Your task to perform on an android device: Open CNN.com Image 0: 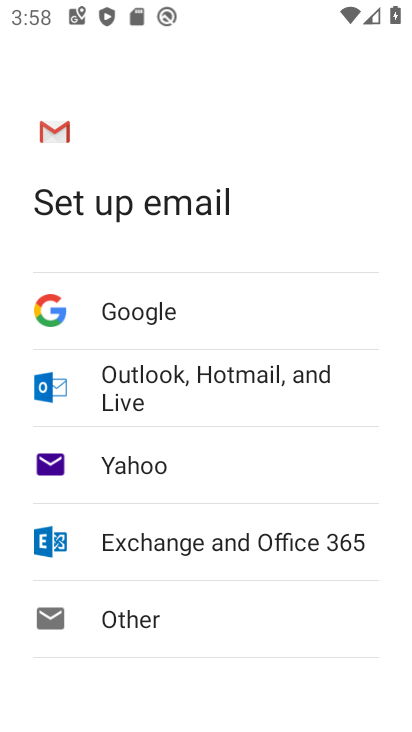
Step 0: press home button
Your task to perform on an android device: Open CNN.com Image 1: 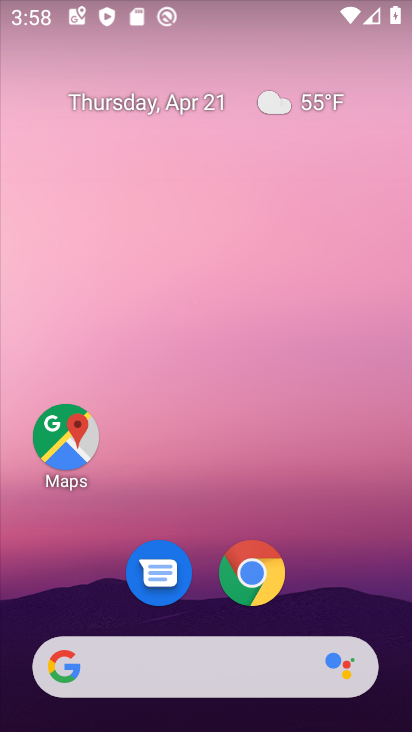
Step 1: click (255, 573)
Your task to perform on an android device: Open CNN.com Image 2: 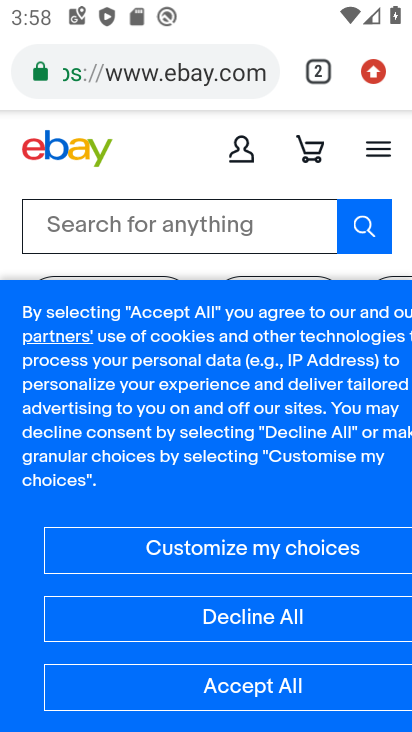
Step 2: click (139, 72)
Your task to perform on an android device: Open CNN.com Image 3: 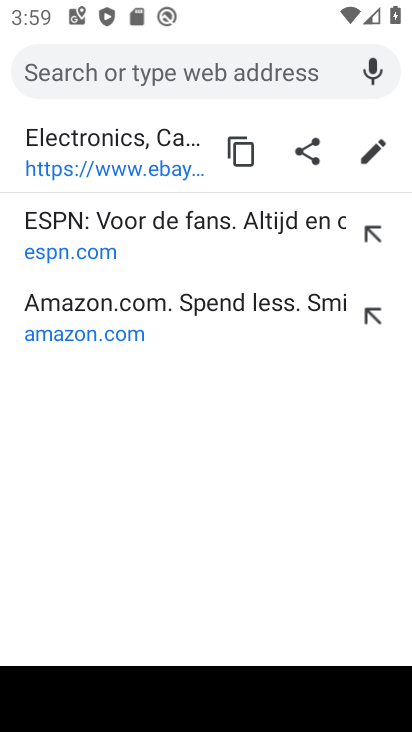
Step 3: type "cnn.com"
Your task to perform on an android device: Open CNN.com Image 4: 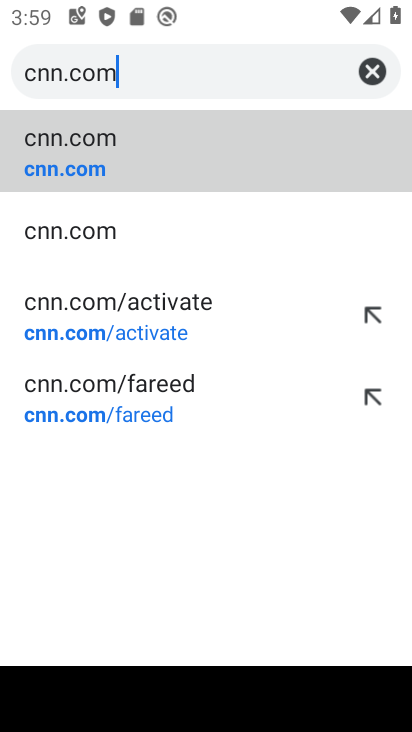
Step 4: click (60, 144)
Your task to perform on an android device: Open CNN.com Image 5: 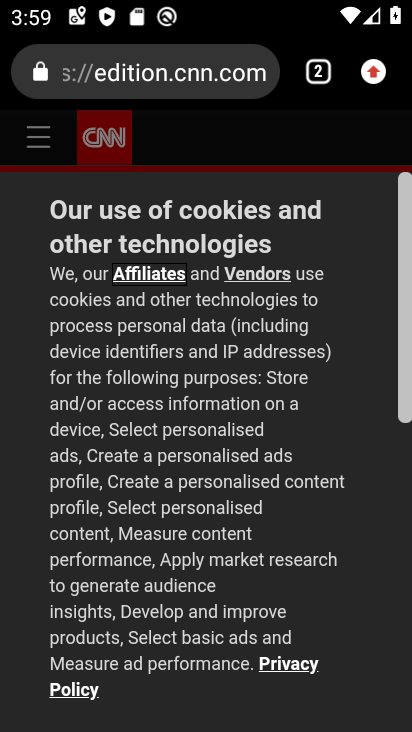
Step 5: task complete